Your task to perform on an android device: Is it going to rain today? Image 0: 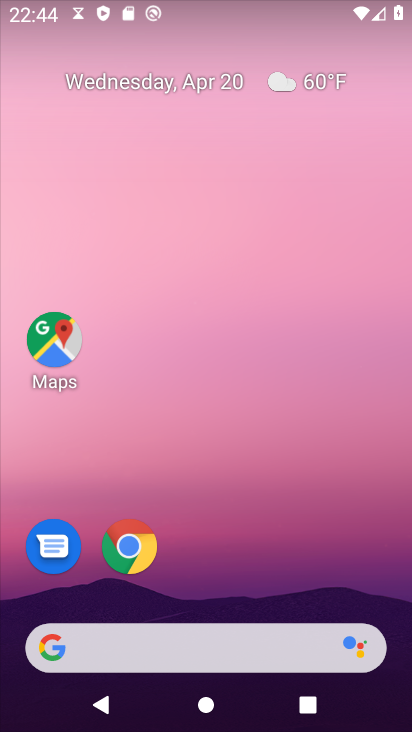
Step 0: click (309, 84)
Your task to perform on an android device: Is it going to rain today? Image 1: 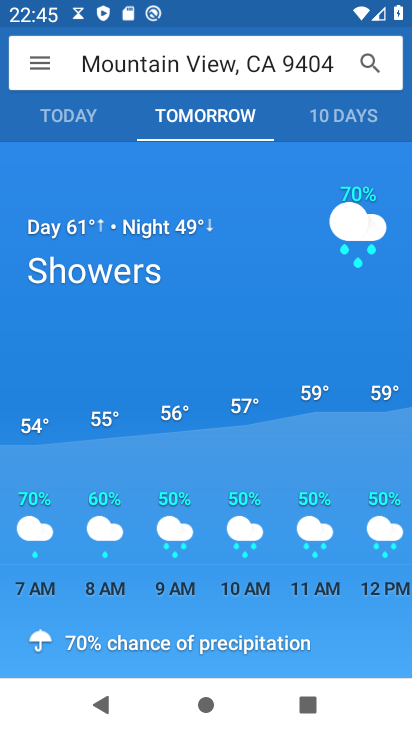
Step 1: click (52, 117)
Your task to perform on an android device: Is it going to rain today? Image 2: 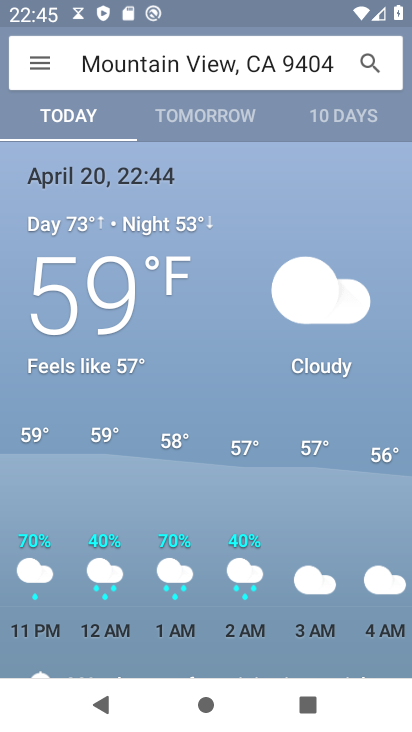
Step 2: task complete